Your task to perform on an android device: snooze an email in the gmail app Image 0: 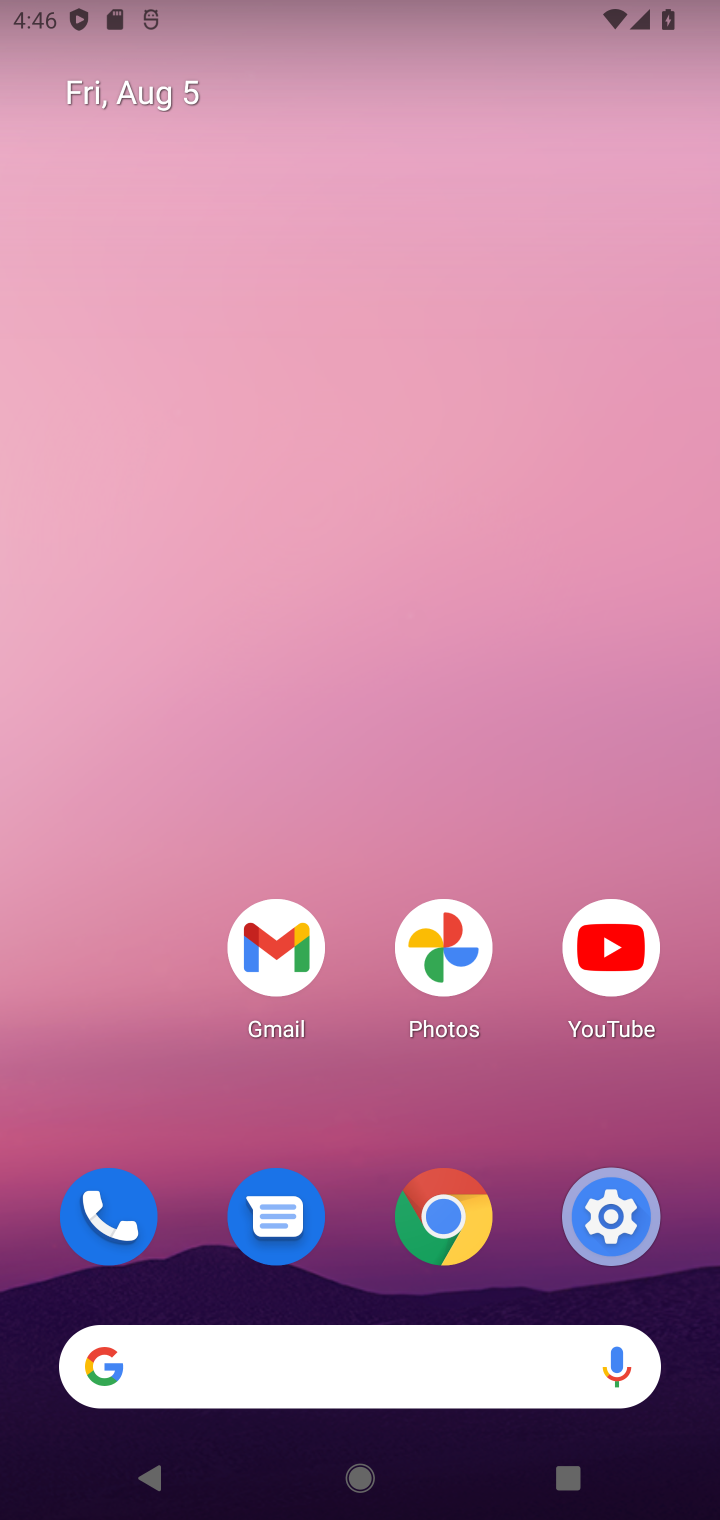
Step 0: press home button
Your task to perform on an android device: snooze an email in the gmail app Image 1: 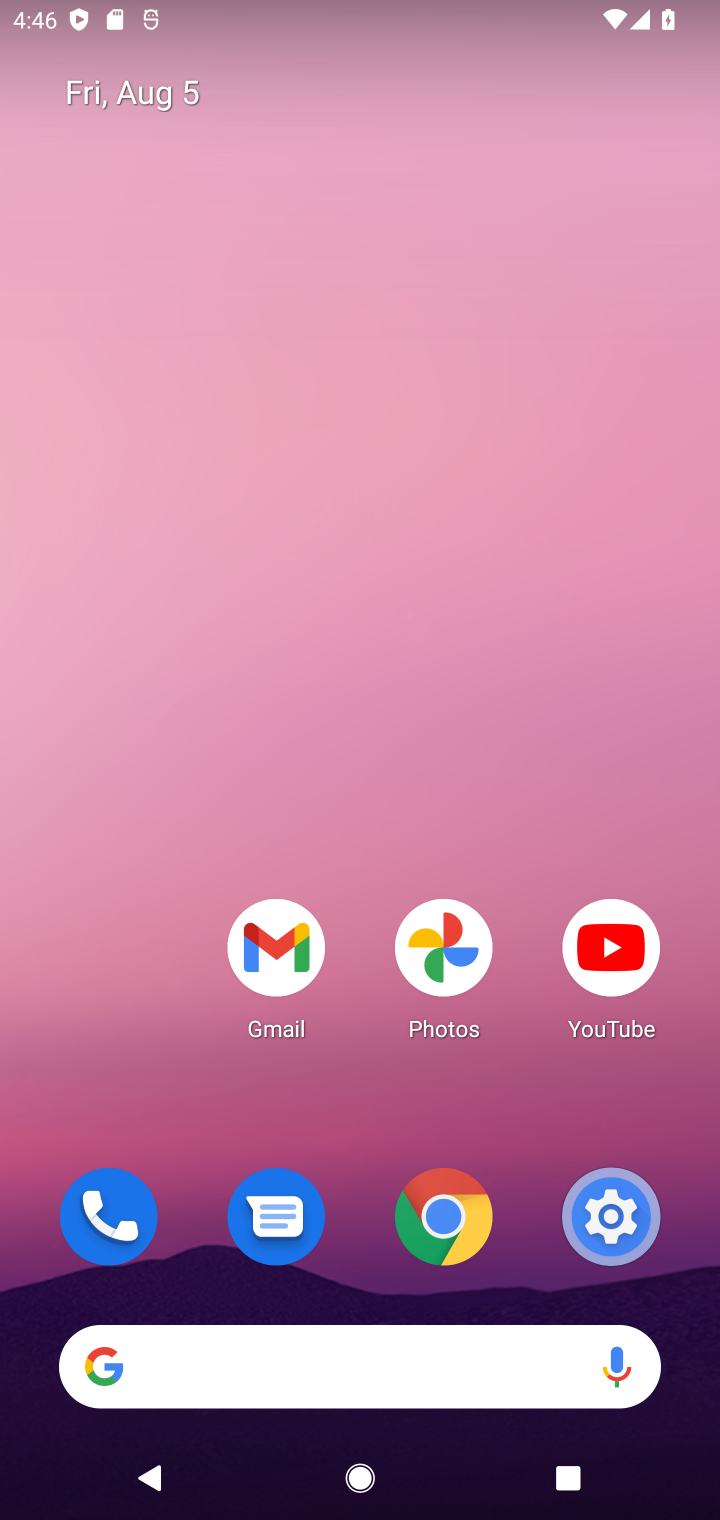
Step 1: click (282, 947)
Your task to perform on an android device: snooze an email in the gmail app Image 2: 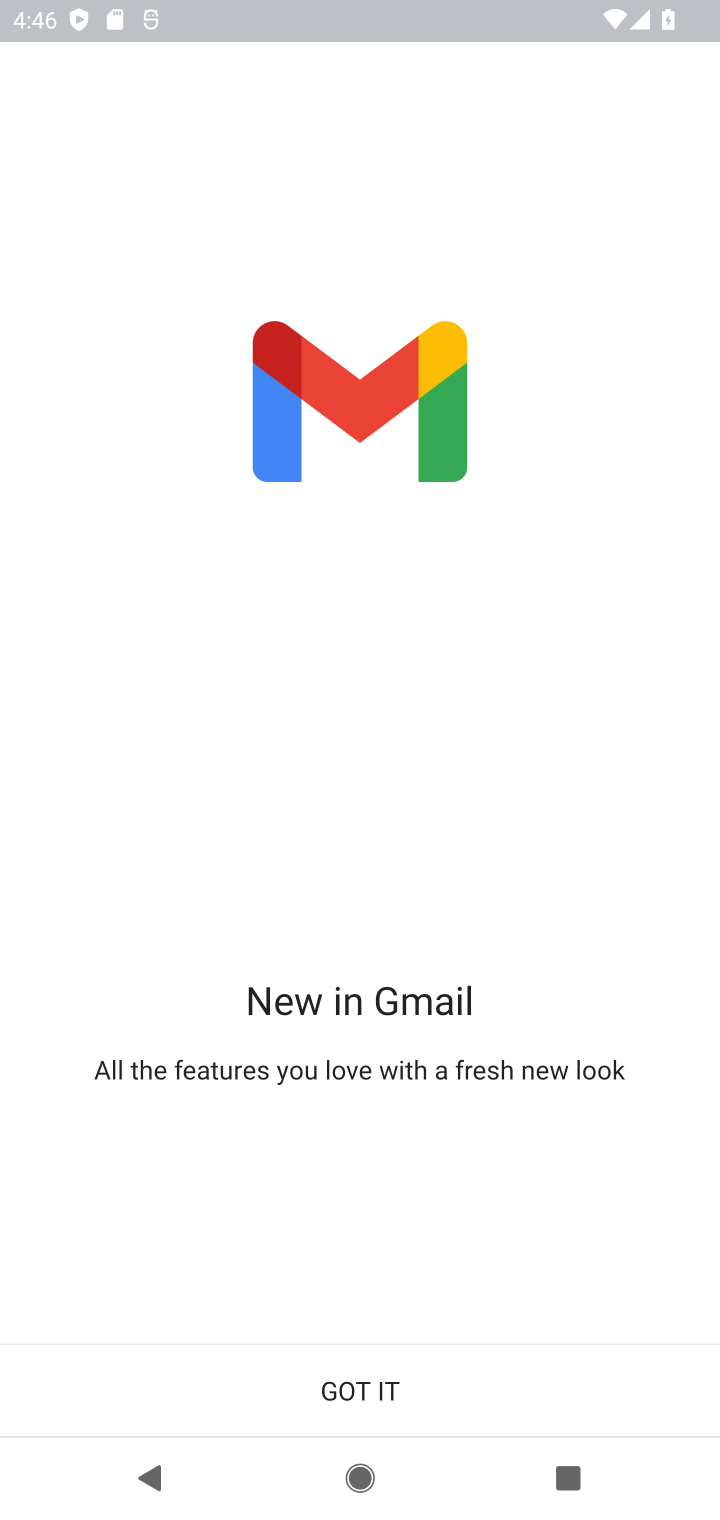
Step 2: click (556, 1400)
Your task to perform on an android device: snooze an email in the gmail app Image 3: 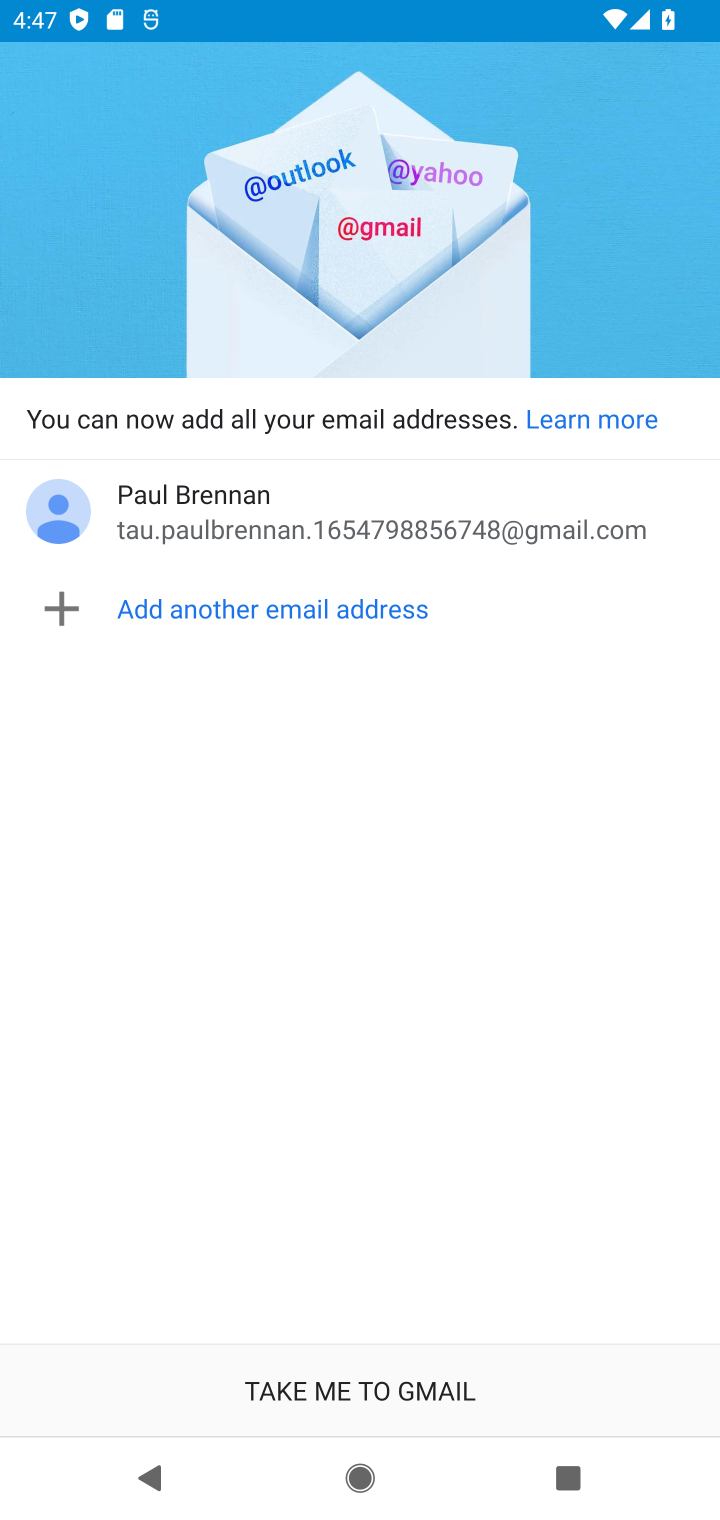
Step 3: click (538, 1397)
Your task to perform on an android device: snooze an email in the gmail app Image 4: 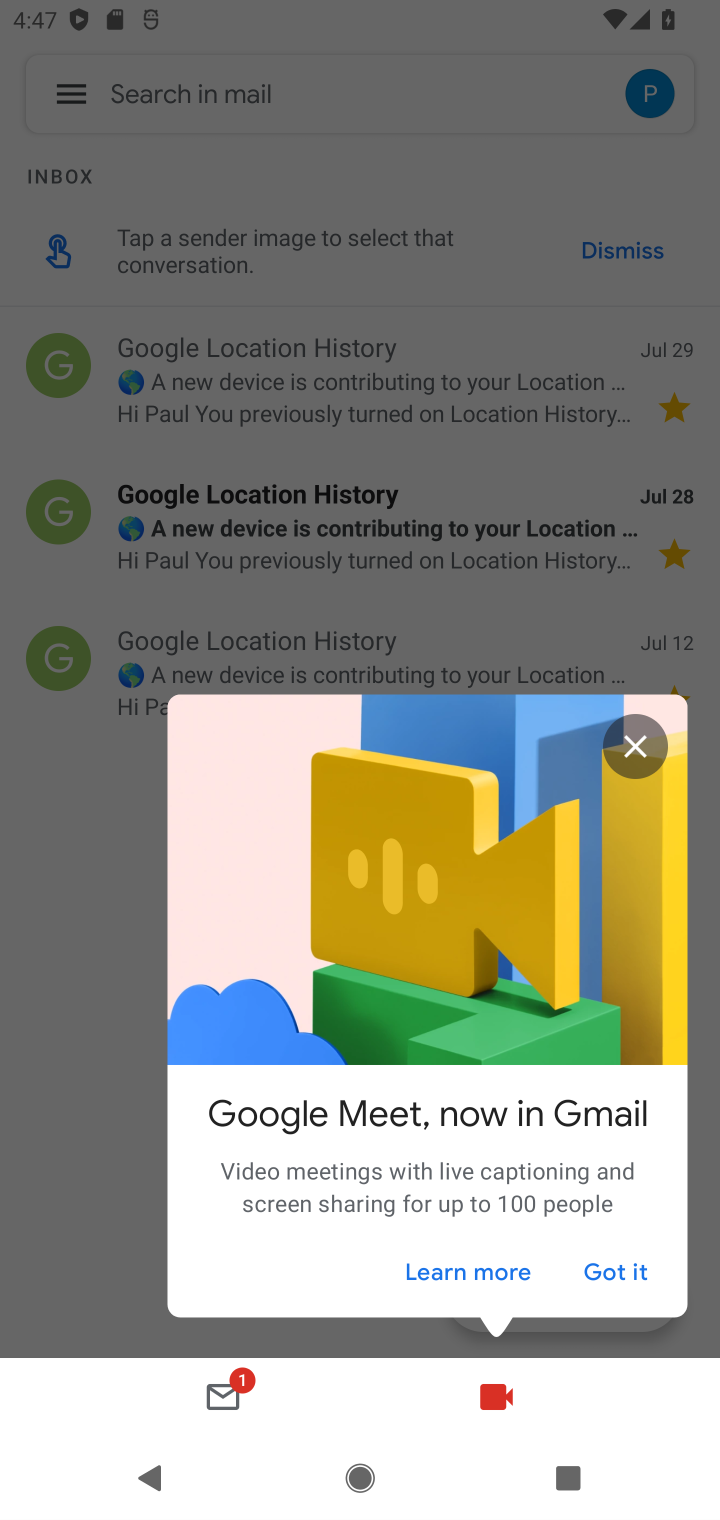
Step 4: click (630, 1267)
Your task to perform on an android device: snooze an email in the gmail app Image 5: 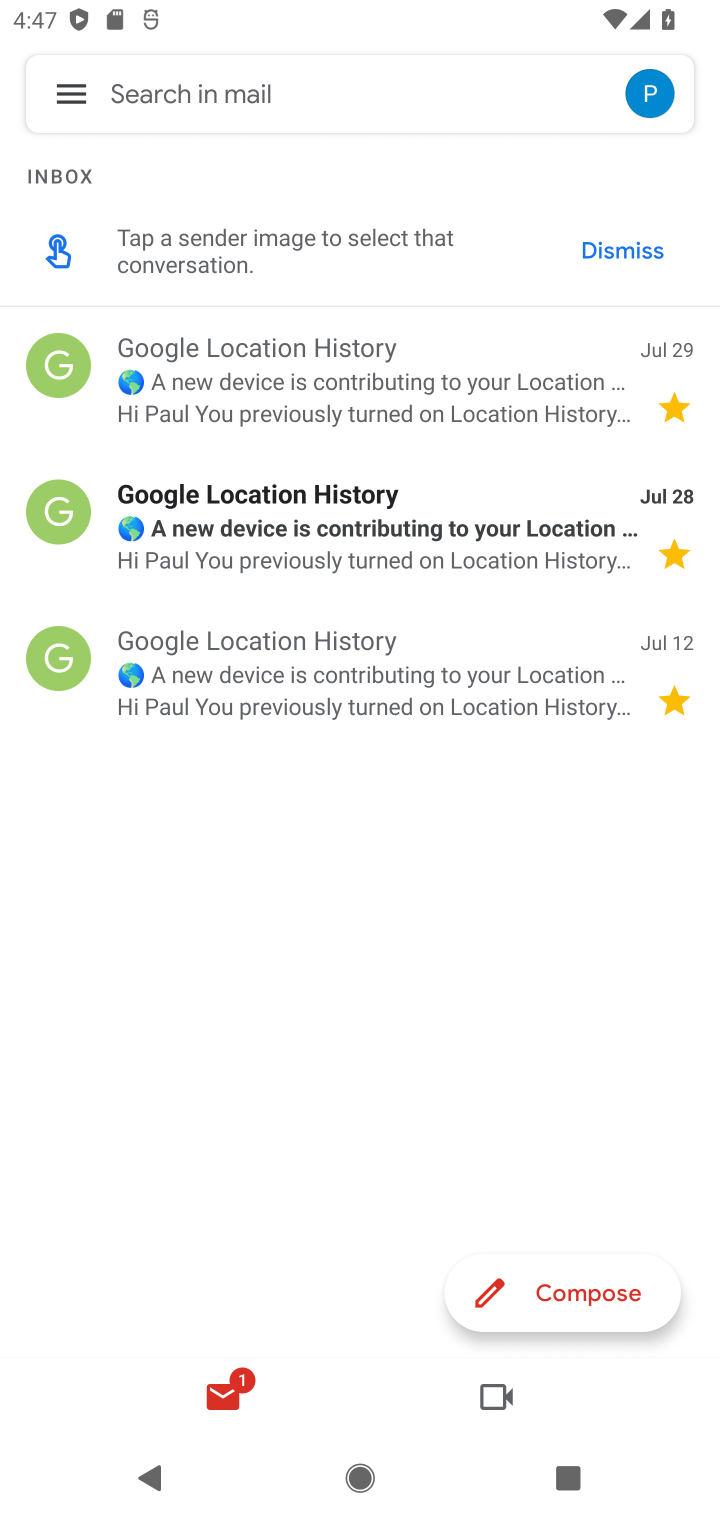
Step 5: click (71, 104)
Your task to perform on an android device: snooze an email in the gmail app Image 6: 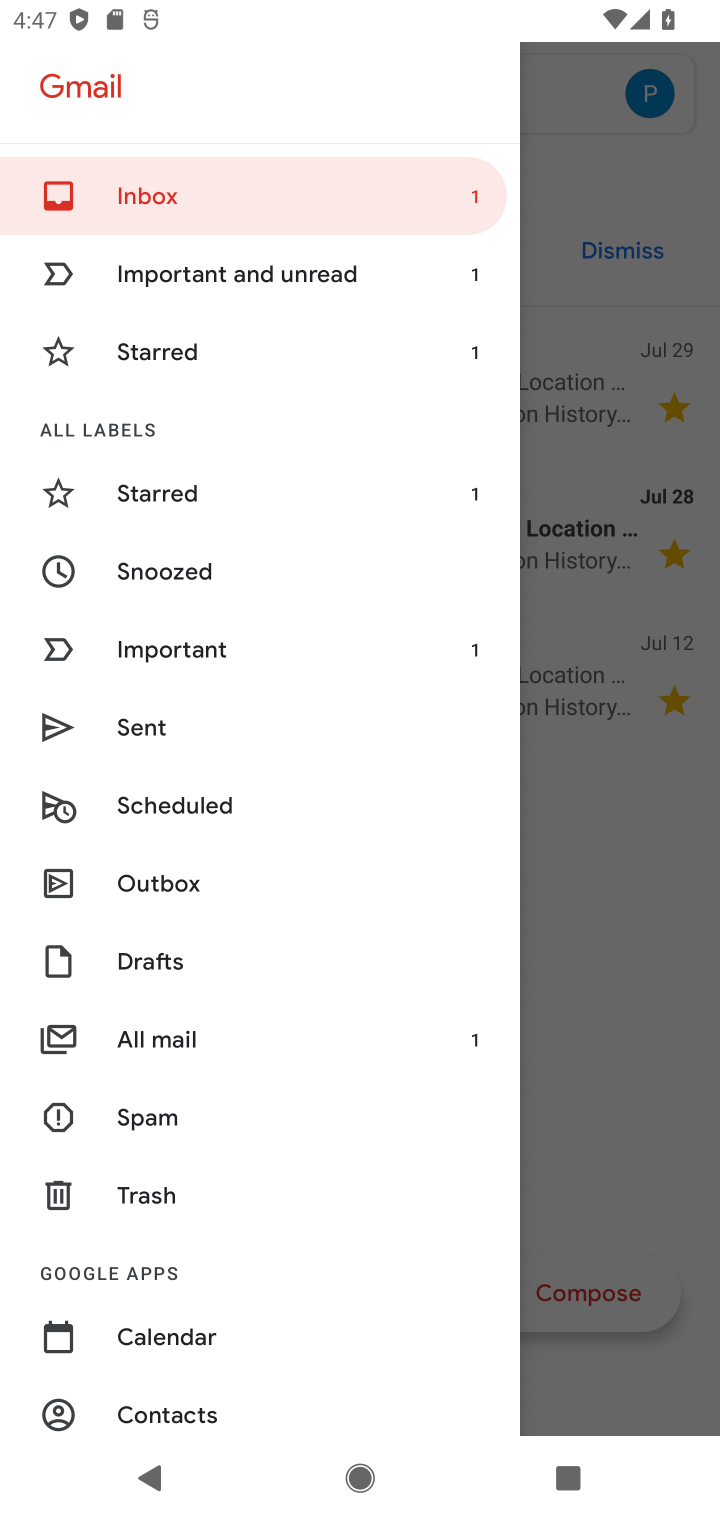
Step 6: drag from (409, 1079) to (276, 624)
Your task to perform on an android device: snooze an email in the gmail app Image 7: 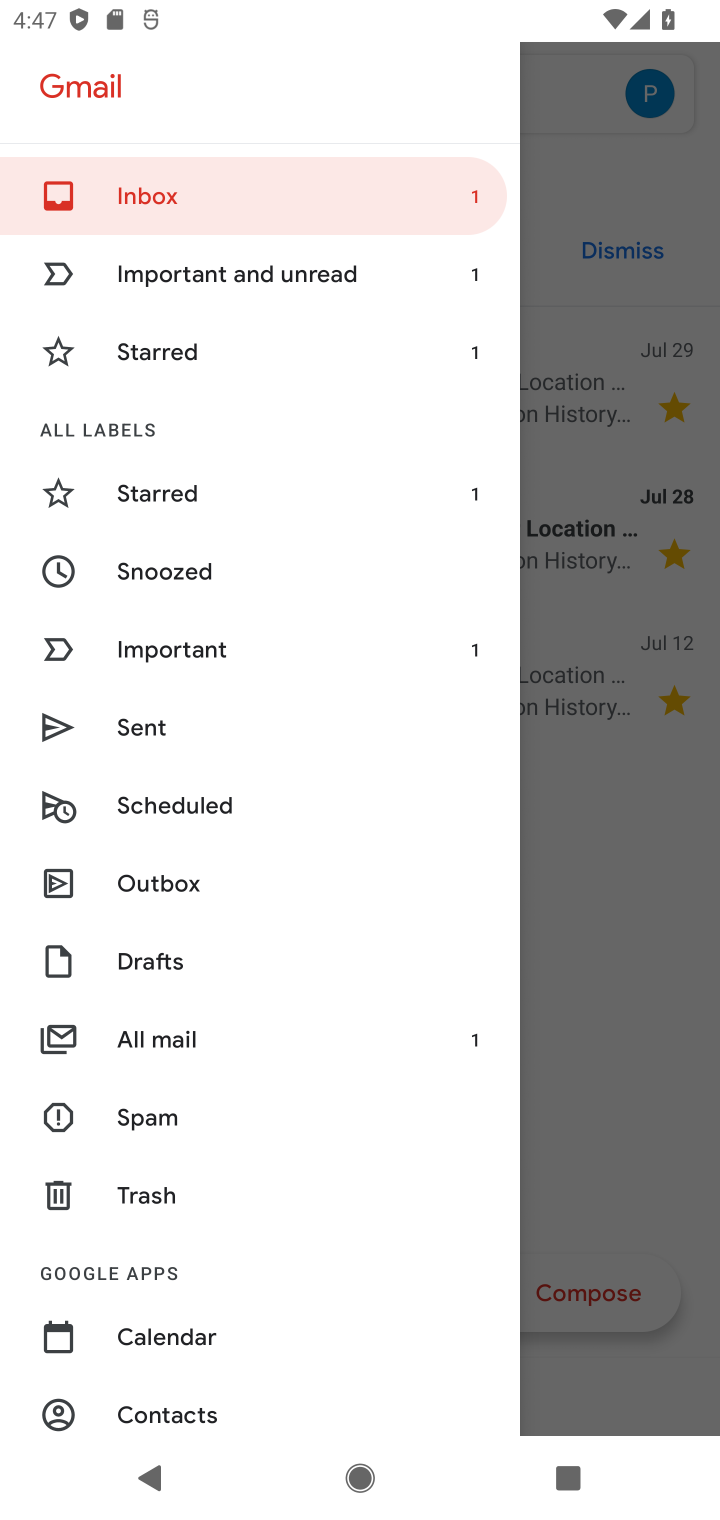
Step 7: click (261, 1034)
Your task to perform on an android device: snooze an email in the gmail app Image 8: 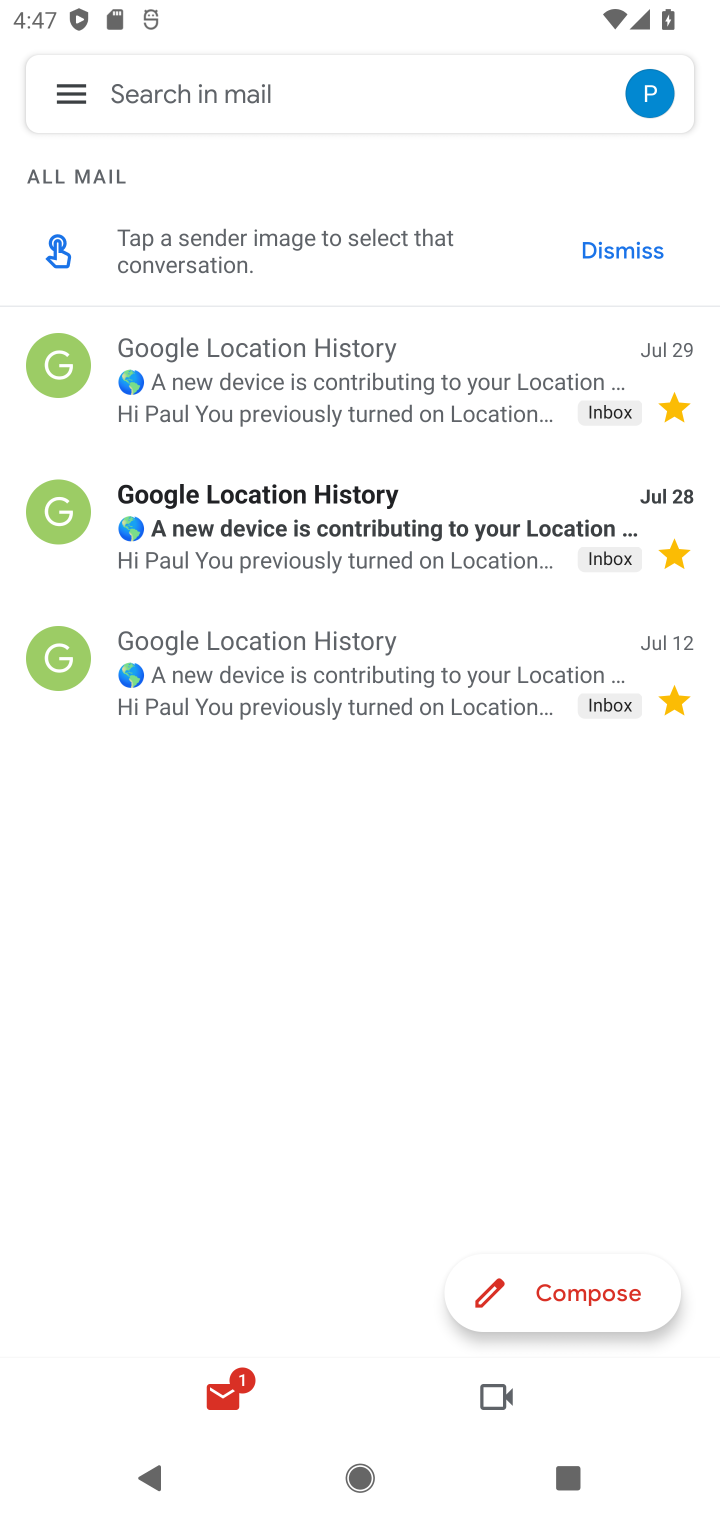
Step 8: click (381, 428)
Your task to perform on an android device: snooze an email in the gmail app Image 9: 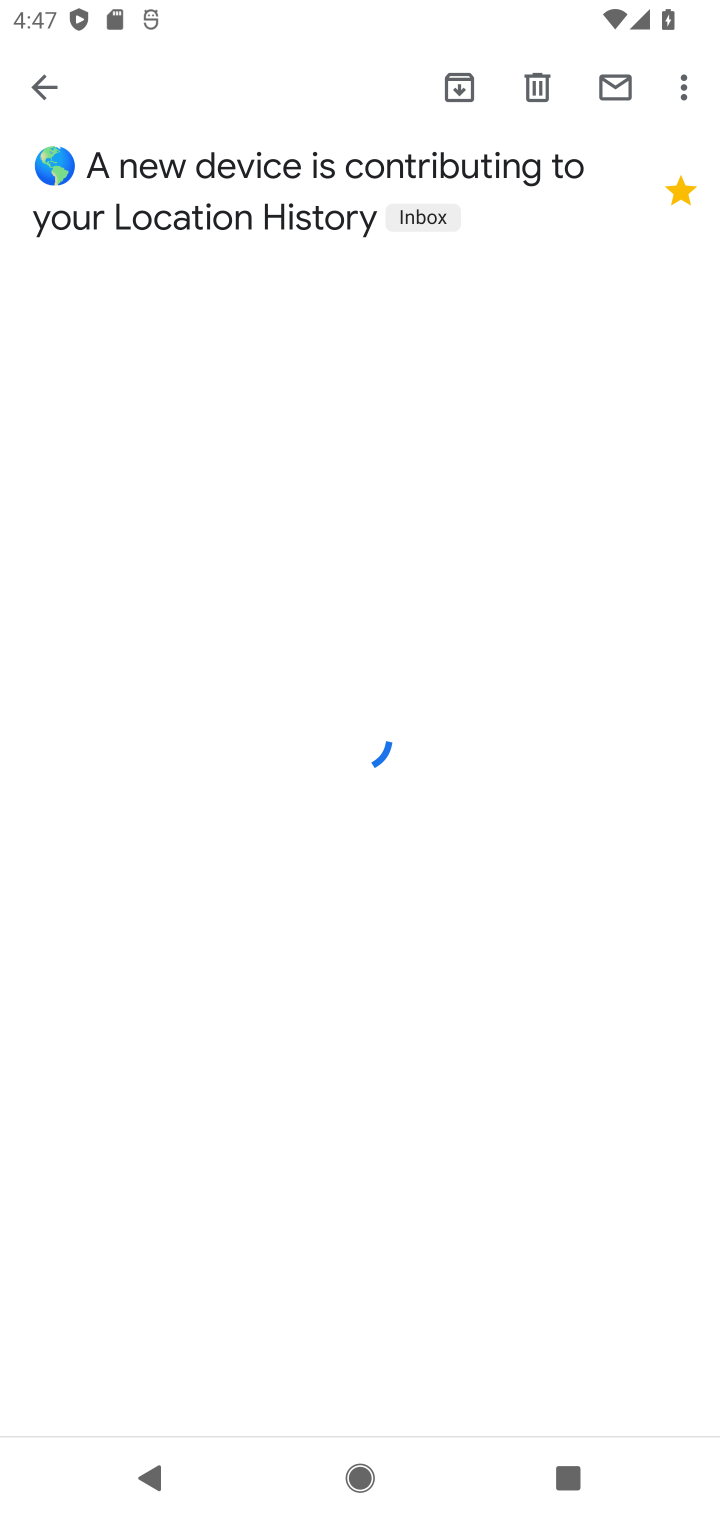
Step 9: click (672, 98)
Your task to perform on an android device: snooze an email in the gmail app Image 10: 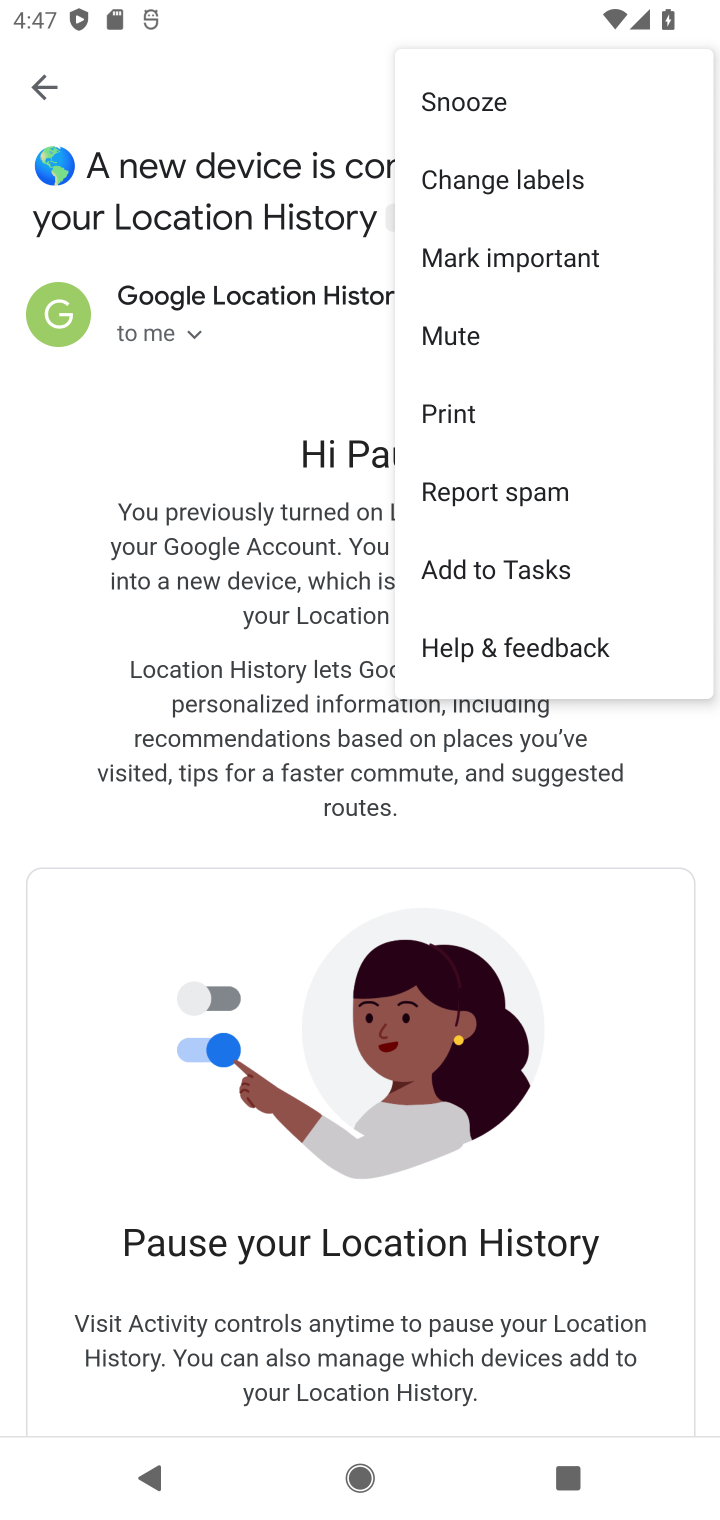
Step 10: click (492, 112)
Your task to perform on an android device: snooze an email in the gmail app Image 11: 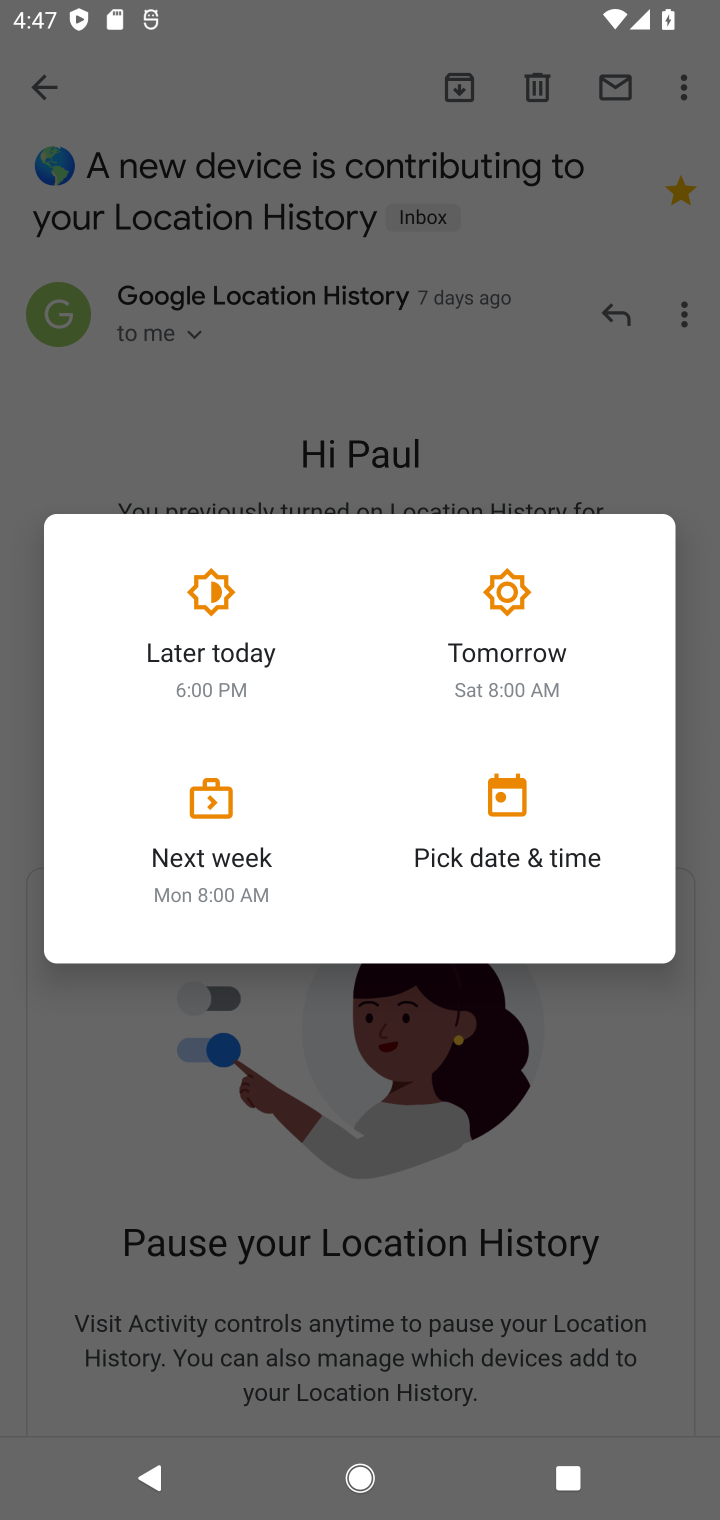
Step 11: click (256, 629)
Your task to perform on an android device: snooze an email in the gmail app Image 12: 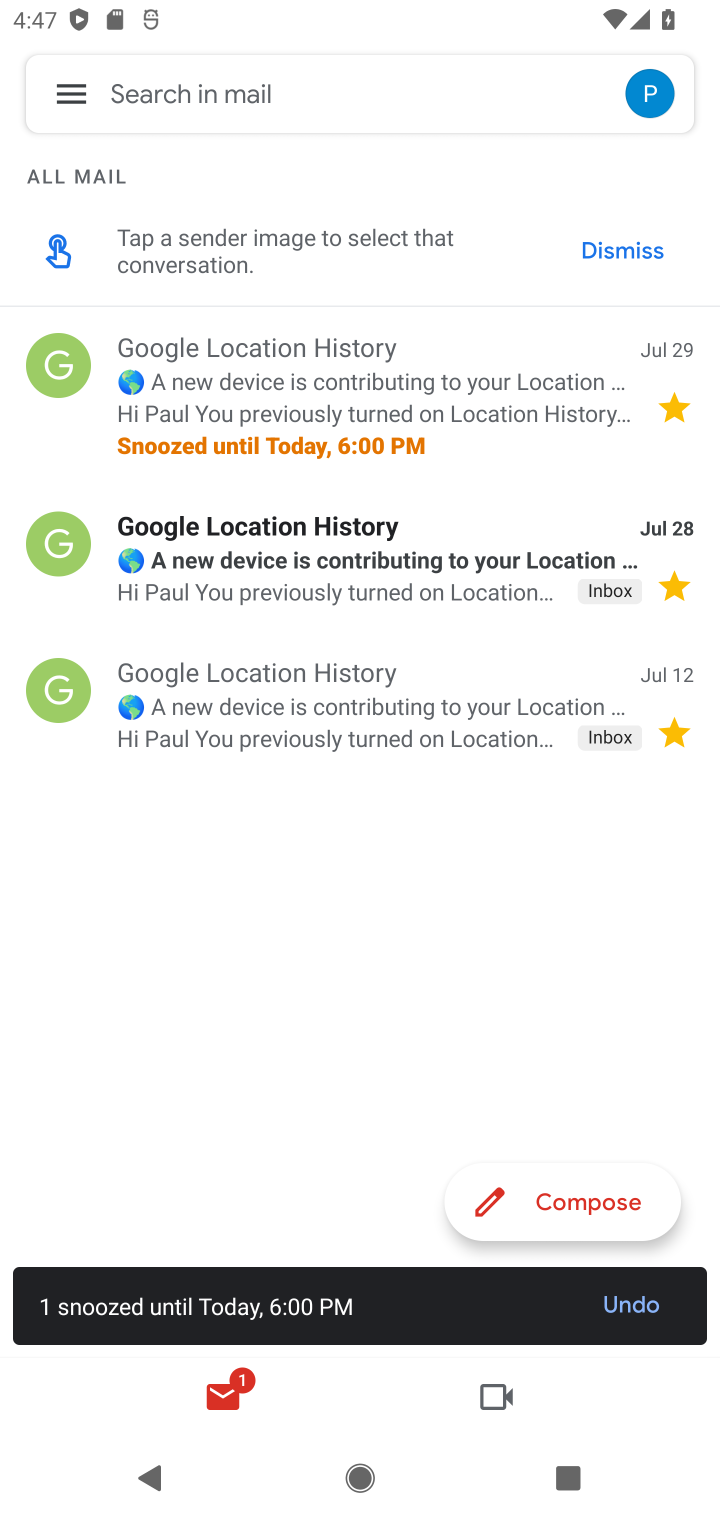
Step 12: task complete